Your task to perform on an android device: change timer sound Image 0: 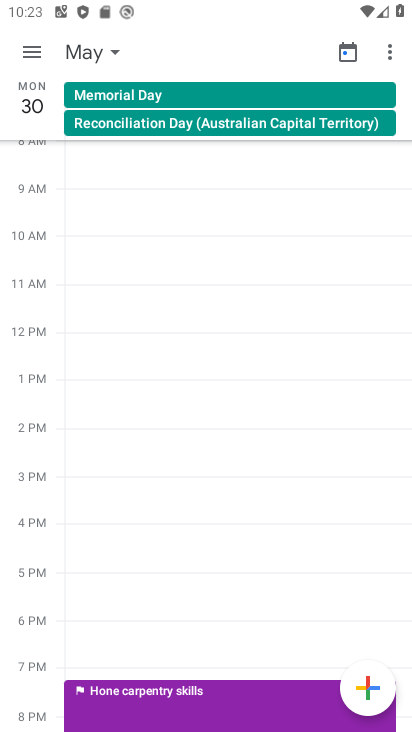
Step 0: press home button
Your task to perform on an android device: change timer sound Image 1: 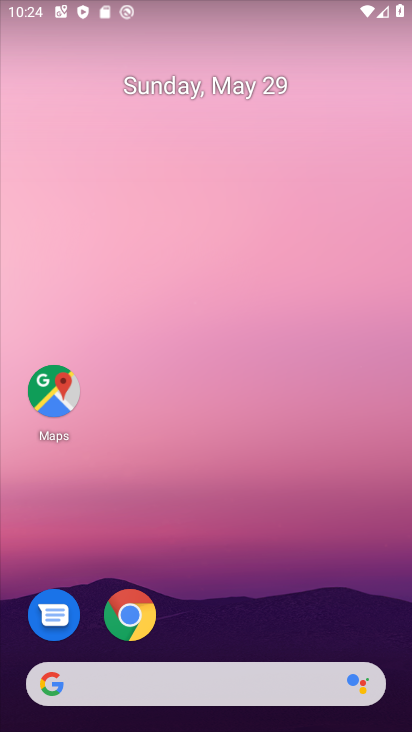
Step 1: drag from (218, 660) to (338, 0)
Your task to perform on an android device: change timer sound Image 2: 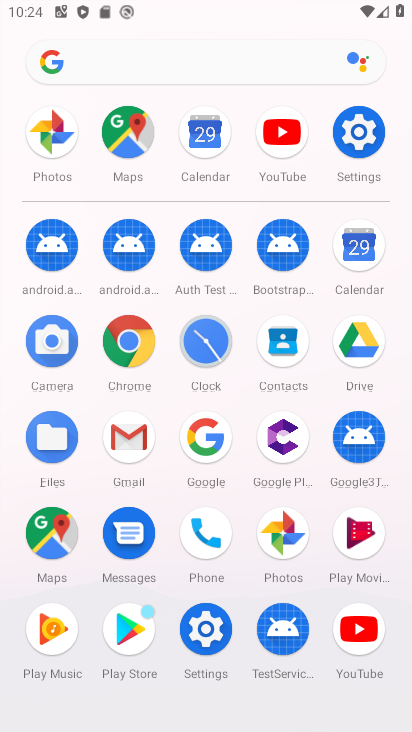
Step 2: click (188, 334)
Your task to perform on an android device: change timer sound Image 3: 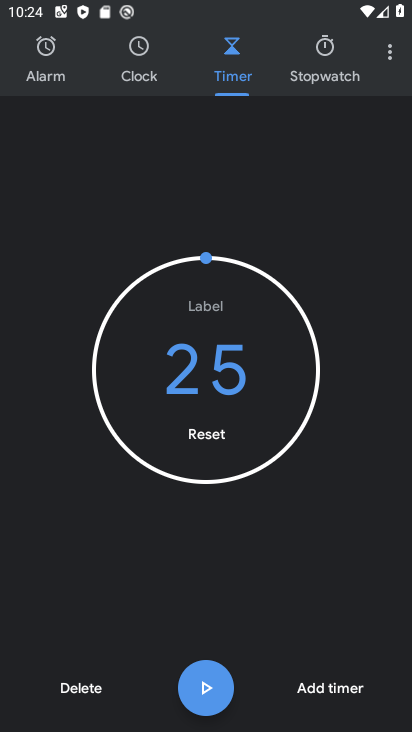
Step 3: click (383, 52)
Your task to perform on an android device: change timer sound Image 4: 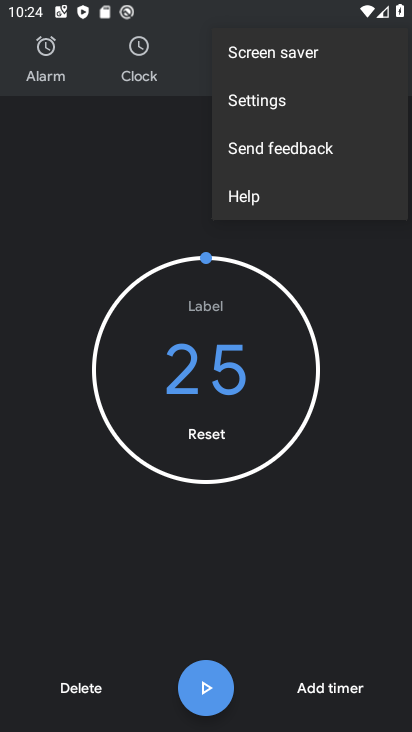
Step 4: click (270, 97)
Your task to perform on an android device: change timer sound Image 5: 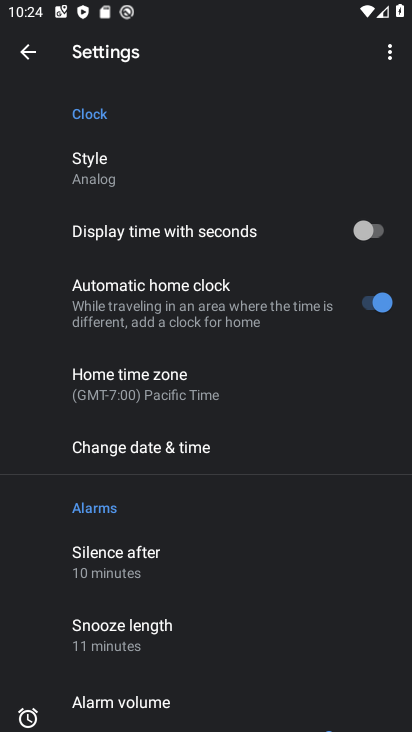
Step 5: drag from (176, 632) to (118, 130)
Your task to perform on an android device: change timer sound Image 6: 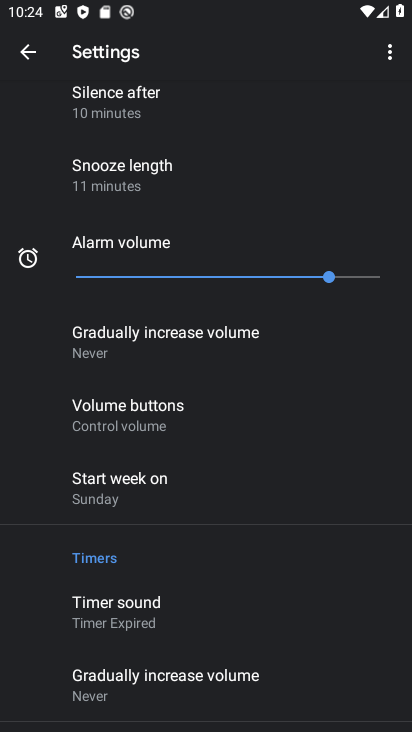
Step 6: click (154, 607)
Your task to perform on an android device: change timer sound Image 7: 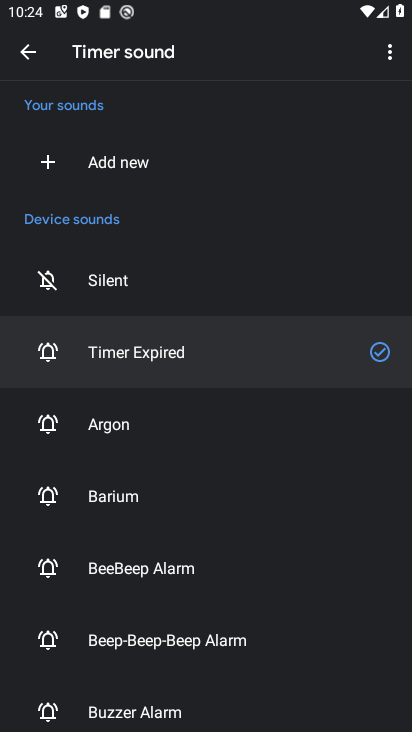
Step 7: click (111, 417)
Your task to perform on an android device: change timer sound Image 8: 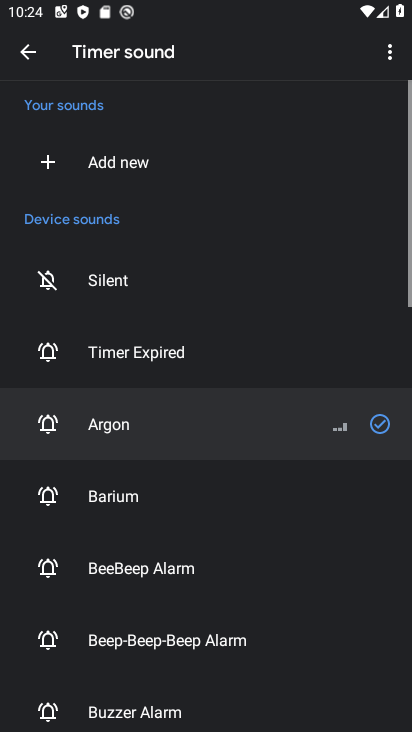
Step 8: task complete